Your task to perform on an android device: Open Yahoo.com Image 0: 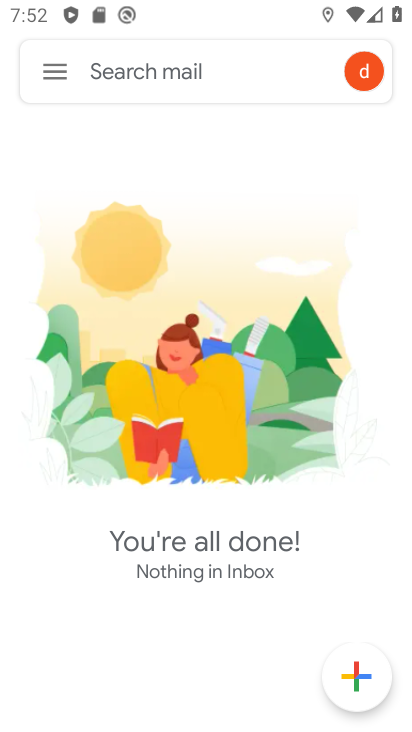
Step 0: press home button
Your task to perform on an android device: Open Yahoo.com Image 1: 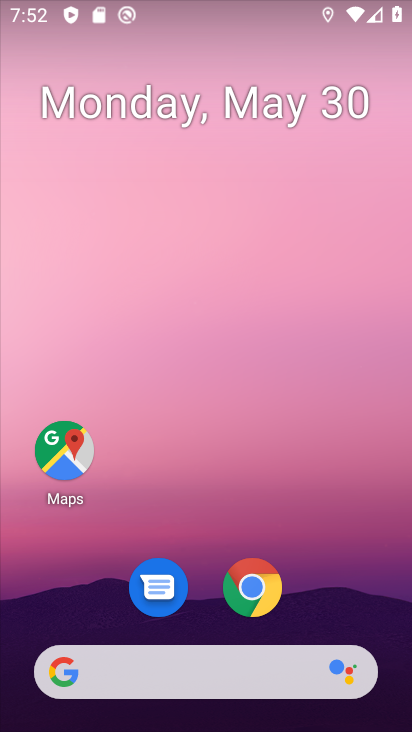
Step 1: click (251, 593)
Your task to perform on an android device: Open Yahoo.com Image 2: 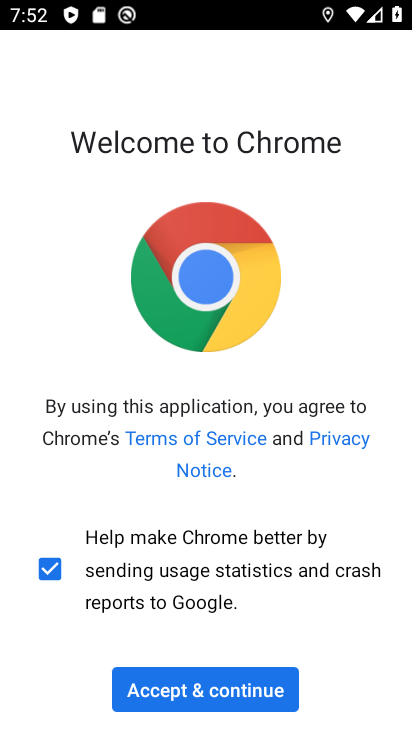
Step 2: click (233, 689)
Your task to perform on an android device: Open Yahoo.com Image 3: 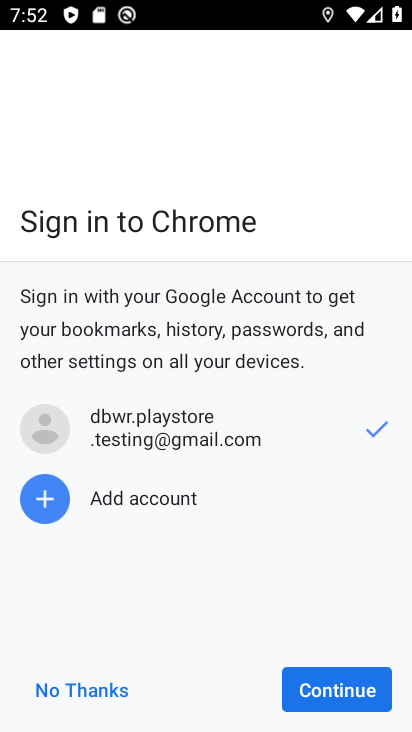
Step 3: click (374, 694)
Your task to perform on an android device: Open Yahoo.com Image 4: 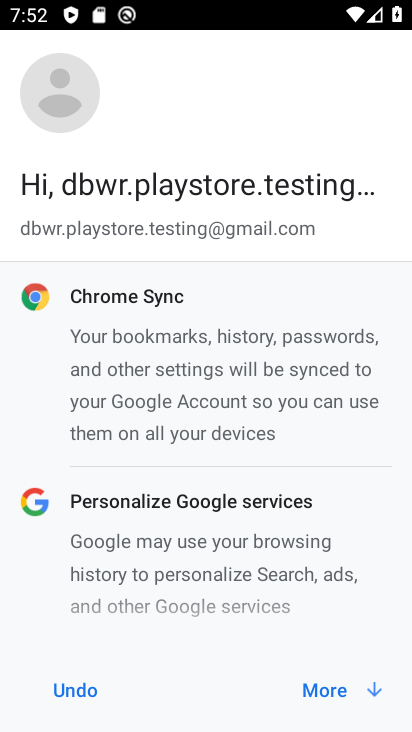
Step 4: click (344, 685)
Your task to perform on an android device: Open Yahoo.com Image 5: 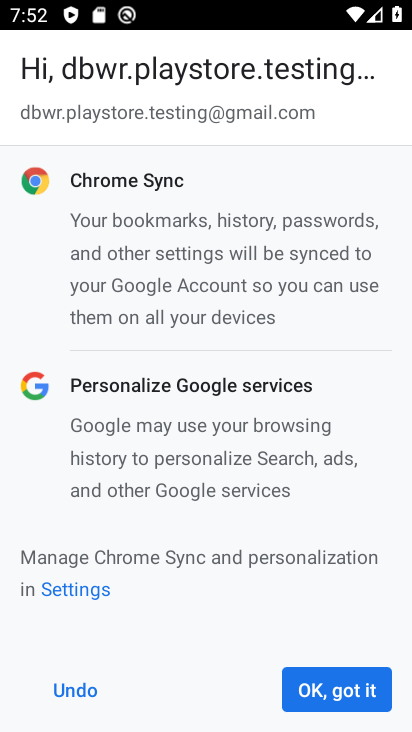
Step 5: click (344, 700)
Your task to perform on an android device: Open Yahoo.com Image 6: 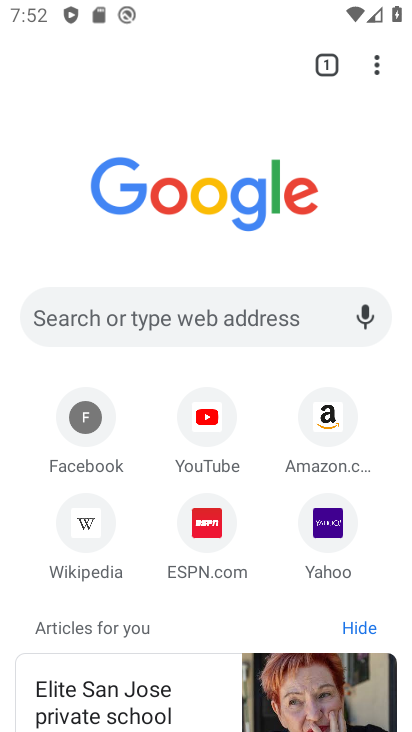
Step 6: click (332, 523)
Your task to perform on an android device: Open Yahoo.com Image 7: 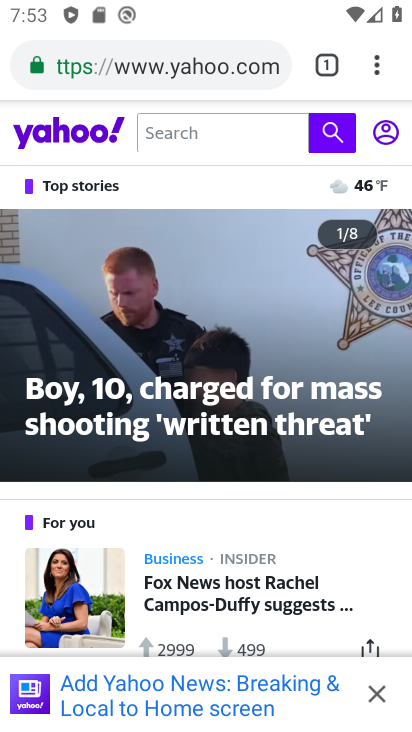
Step 7: task complete